Your task to perform on an android device: See recent photos Image 0: 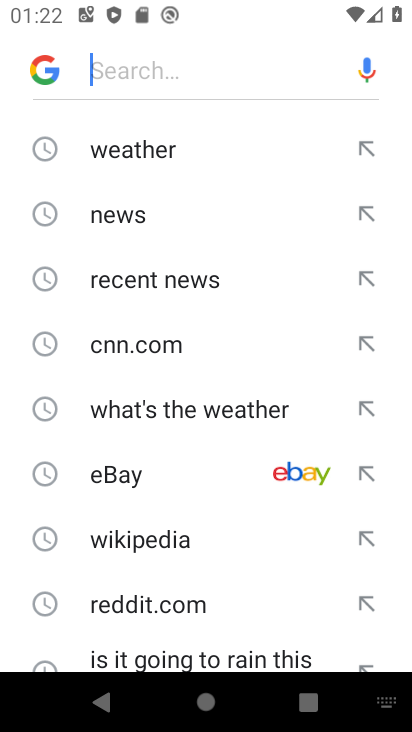
Step 0: press home button
Your task to perform on an android device: See recent photos Image 1: 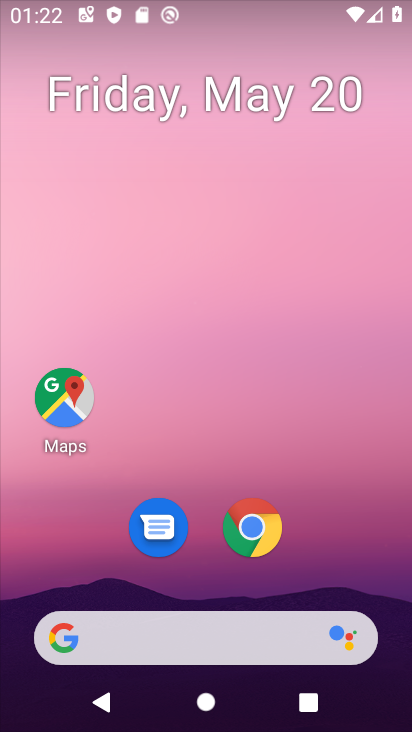
Step 1: drag from (178, 634) to (327, 148)
Your task to perform on an android device: See recent photos Image 2: 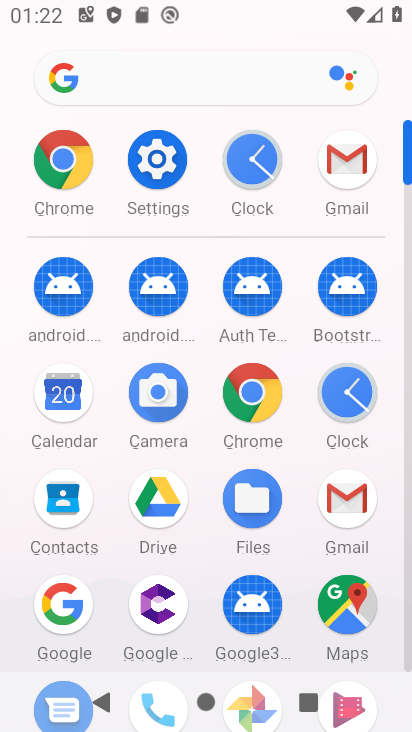
Step 2: drag from (201, 572) to (290, 291)
Your task to perform on an android device: See recent photos Image 3: 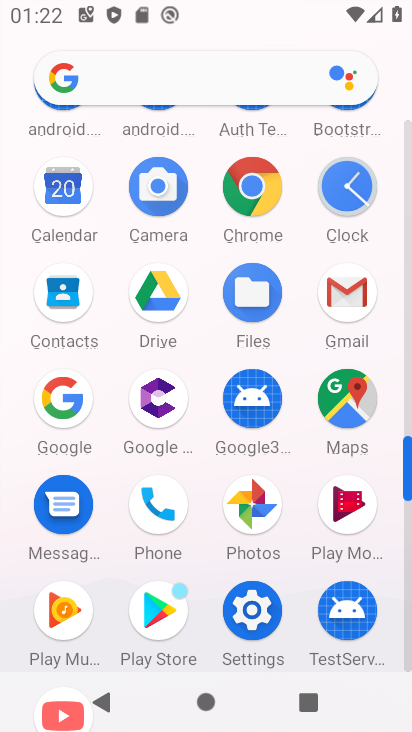
Step 3: click (240, 518)
Your task to perform on an android device: See recent photos Image 4: 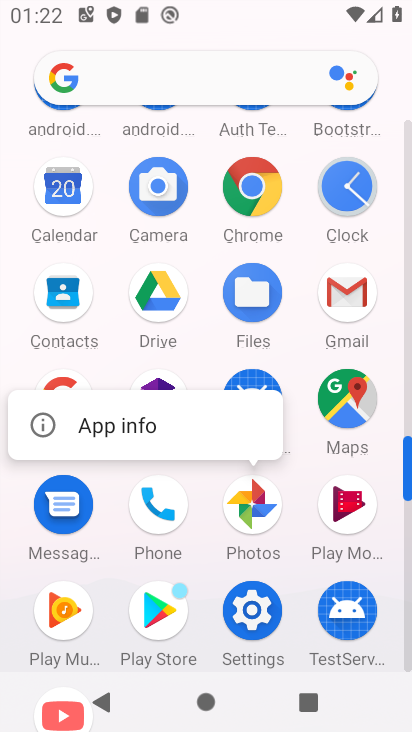
Step 4: click (249, 511)
Your task to perform on an android device: See recent photos Image 5: 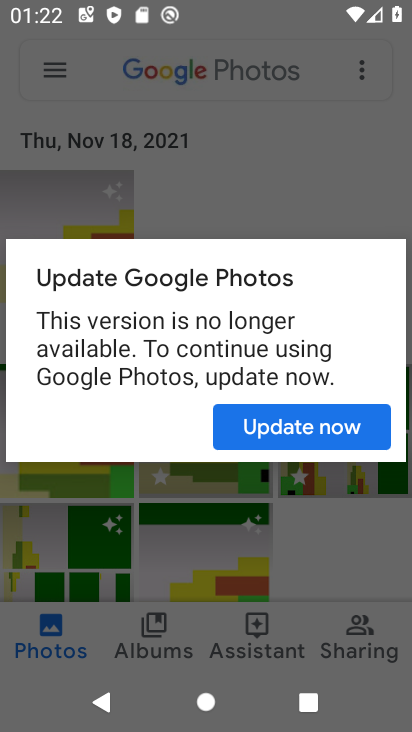
Step 5: click (301, 432)
Your task to perform on an android device: See recent photos Image 6: 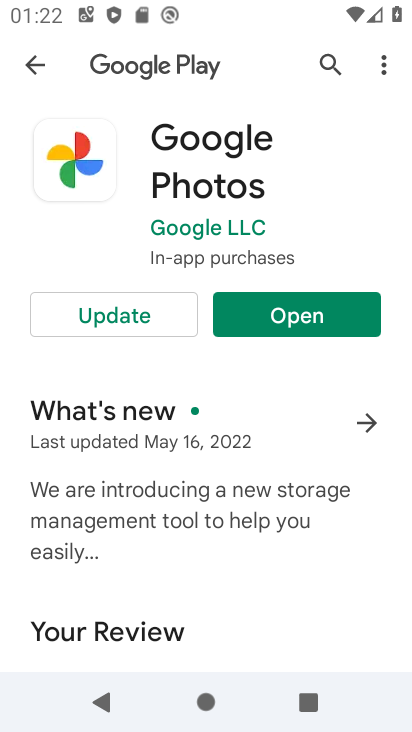
Step 6: click (302, 303)
Your task to perform on an android device: See recent photos Image 7: 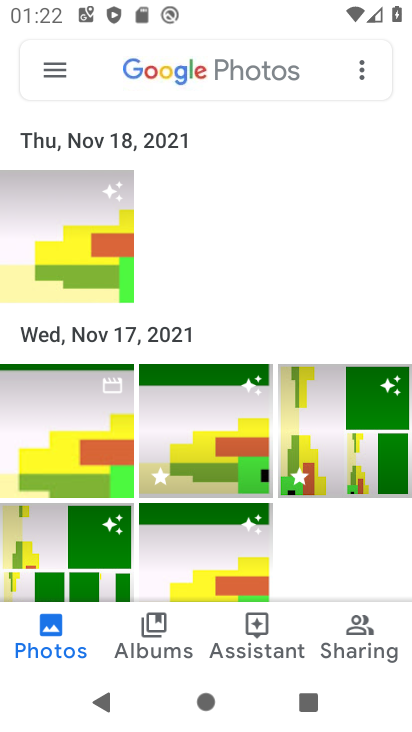
Step 7: click (173, 649)
Your task to perform on an android device: See recent photos Image 8: 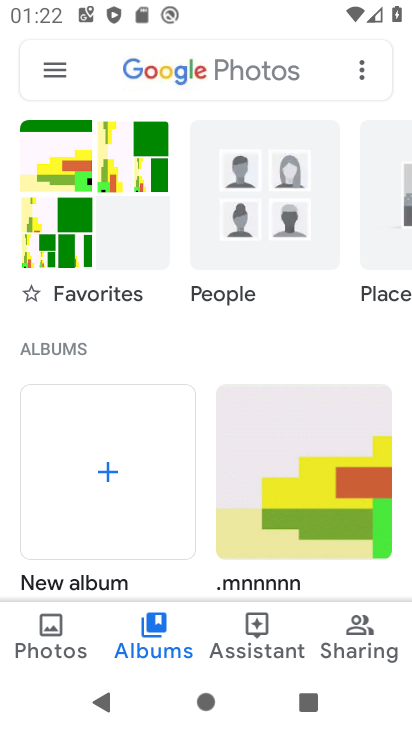
Step 8: task complete